Your task to perform on an android device: Go to calendar. Show me events next week Image 0: 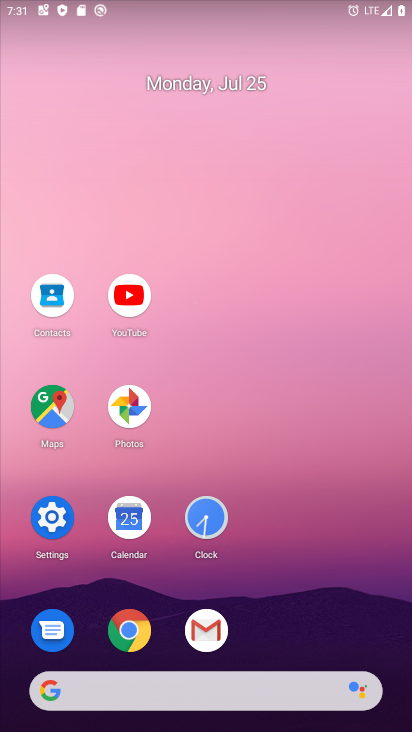
Step 0: click (113, 526)
Your task to perform on an android device: Go to calendar. Show me events next week Image 1: 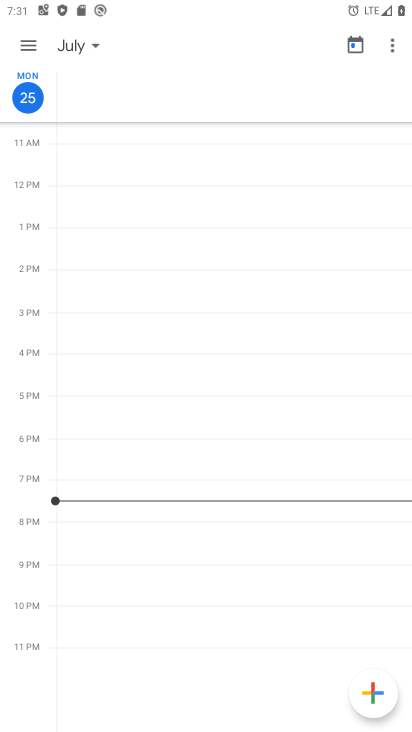
Step 1: click (93, 38)
Your task to perform on an android device: Go to calendar. Show me events next week Image 2: 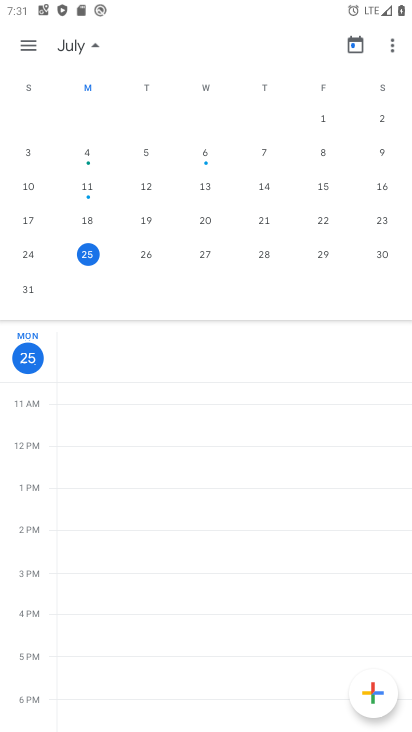
Step 2: drag from (382, 192) to (78, 153)
Your task to perform on an android device: Go to calendar. Show me events next week Image 3: 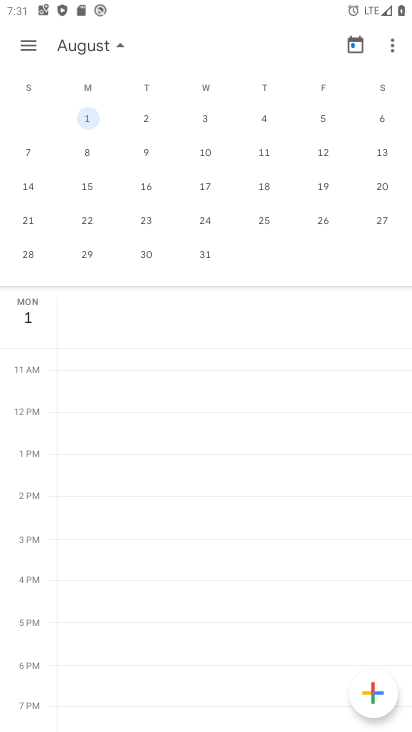
Step 3: click (28, 48)
Your task to perform on an android device: Go to calendar. Show me events next week Image 4: 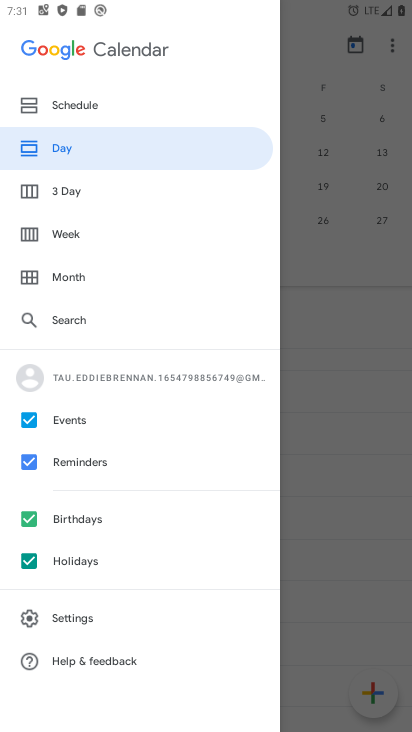
Step 4: click (66, 229)
Your task to perform on an android device: Go to calendar. Show me events next week Image 5: 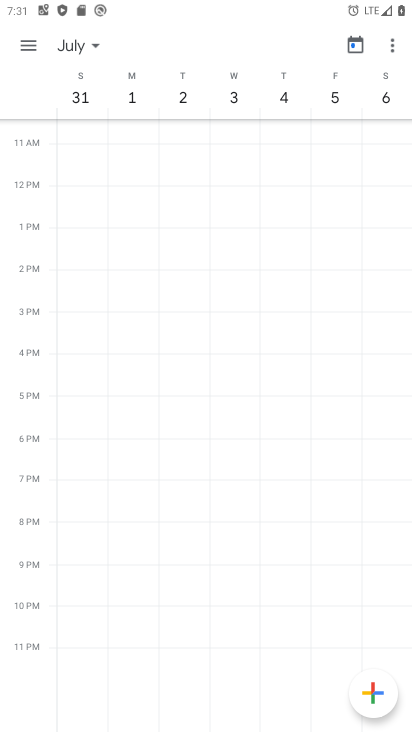
Step 5: task complete